Your task to perform on an android device: Open Google Chrome Image 0: 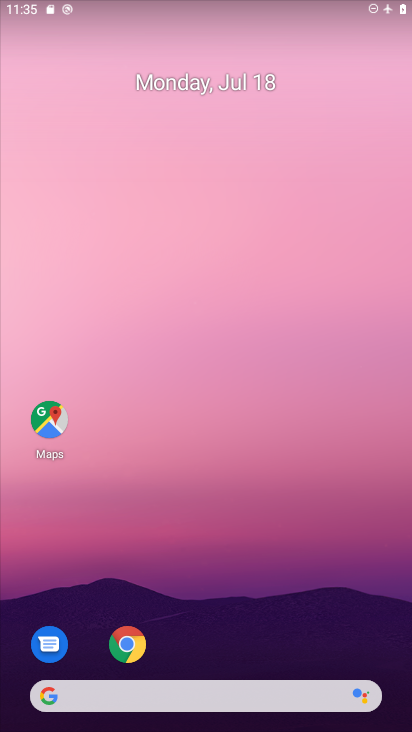
Step 0: click (129, 642)
Your task to perform on an android device: Open Google Chrome Image 1: 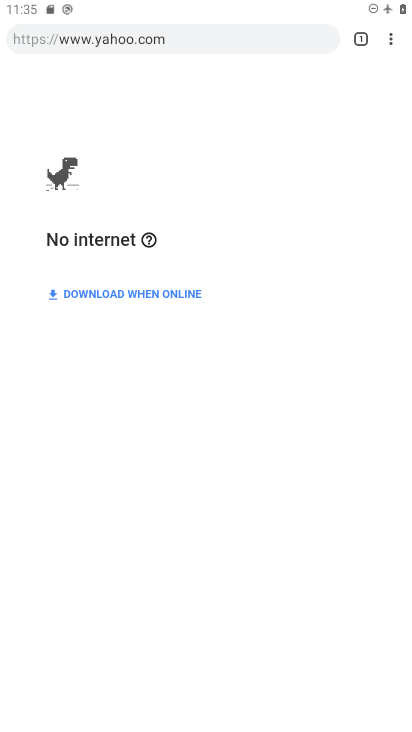
Step 1: task complete